Your task to perform on an android device: Open accessibility settings Image 0: 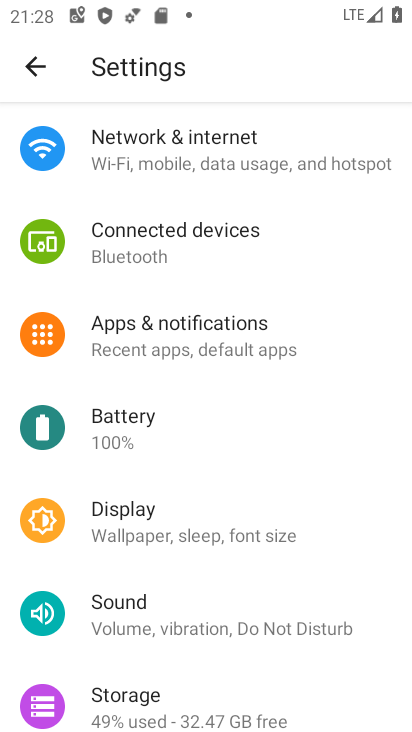
Step 0: drag from (242, 609) to (266, 134)
Your task to perform on an android device: Open accessibility settings Image 1: 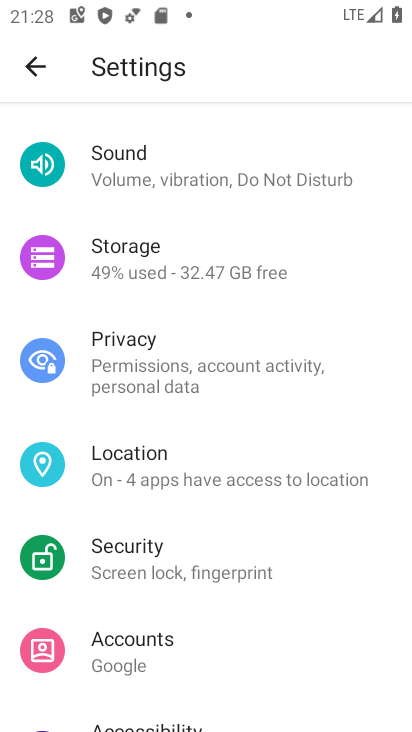
Step 1: drag from (220, 594) to (269, 161)
Your task to perform on an android device: Open accessibility settings Image 2: 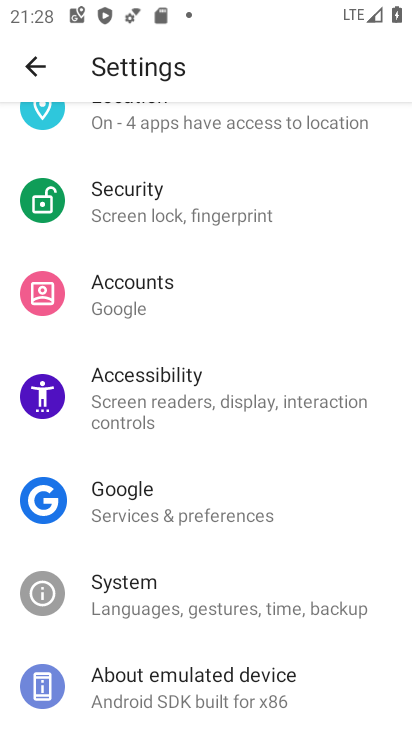
Step 2: click (229, 394)
Your task to perform on an android device: Open accessibility settings Image 3: 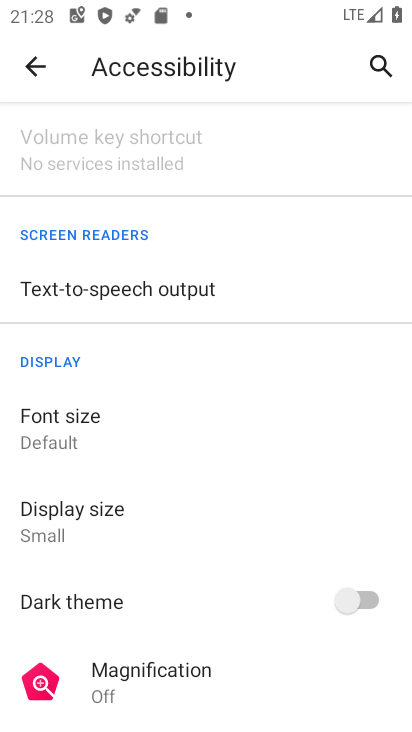
Step 3: task complete